Your task to perform on an android device: Go to display settings Image 0: 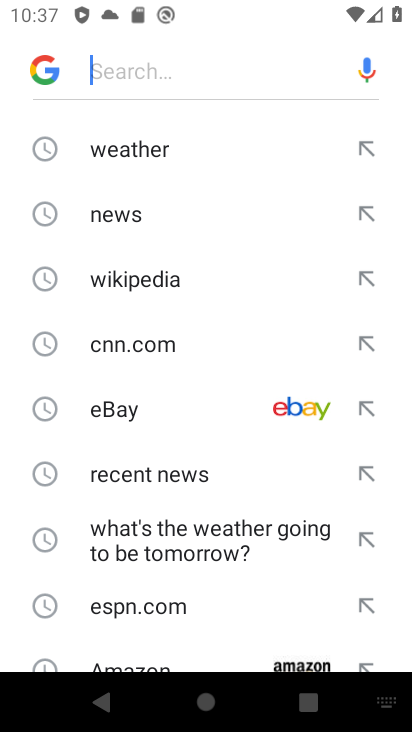
Step 0: press home button
Your task to perform on an android device: Go to display settings Image 1: 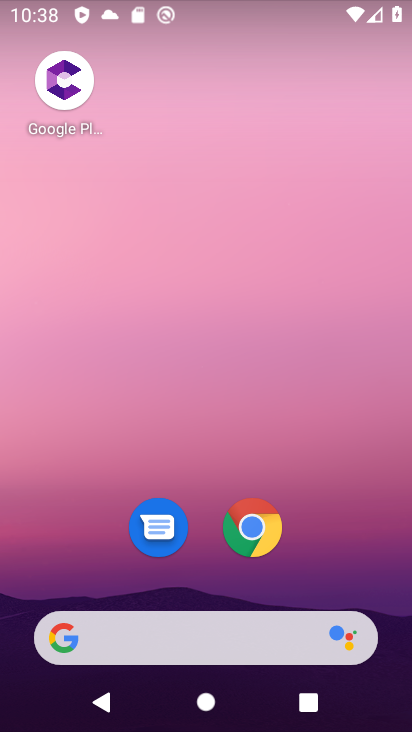
Step 1: drag from (240, 712) to (261, 146)
Your task to perform on an android device: Go to display settings Image 2: 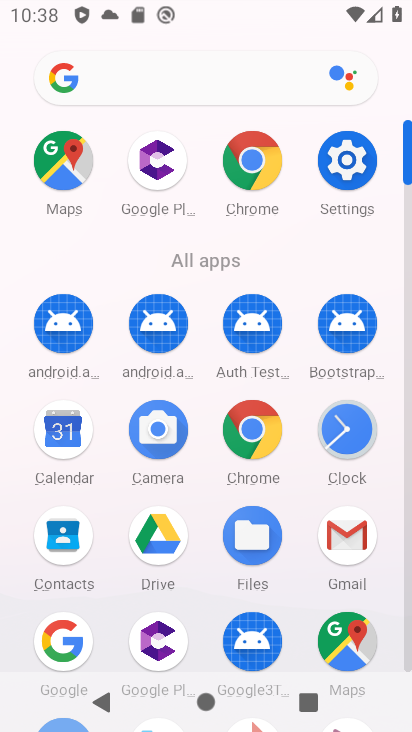
Step 2: click (342, 146)
Your task to perform on an android device: Go to display settings Image 3: 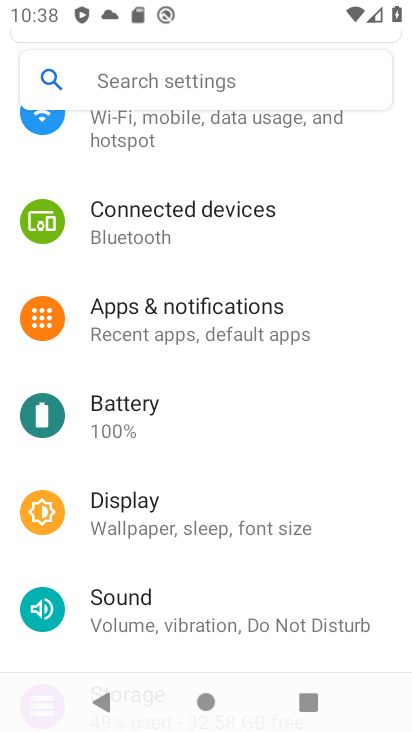
Step 3: click (202, 515)
Your task to perform on an android device: Go to display settings Image 4: 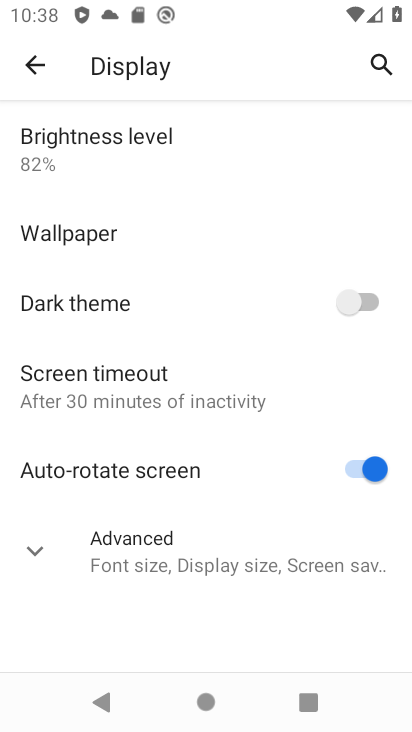
Step 4: task complete